Your task to perform on an android device: change keyboard looks Image 0: 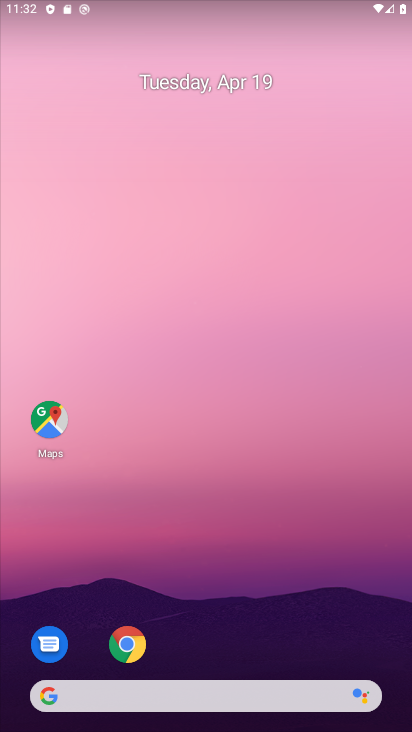
Step 0: drag from (209, 728) to (208, 106)
Your task to perform on an android device: change keyboard looks Image 1: 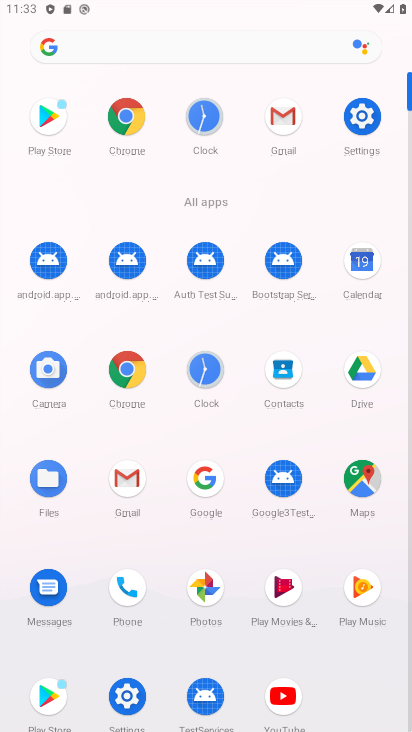
Step 1: click (129, 693)
Your task to perform on an android device: change keyboard looks Image 2: 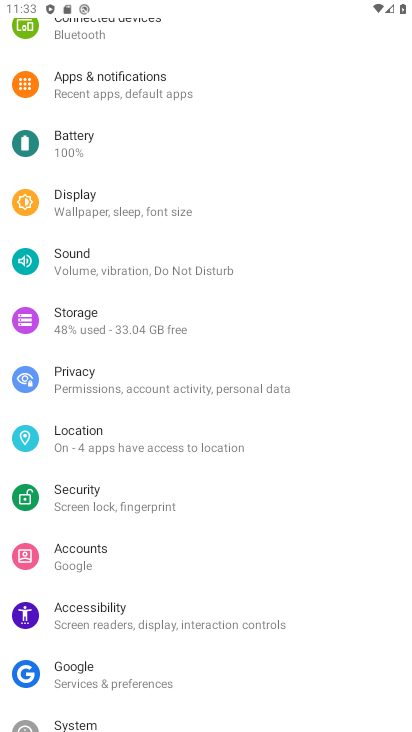
Step 2: drag from (141, 660) to (157, 222)
Your task to perform on an android device: change keyboard looks Image 3: 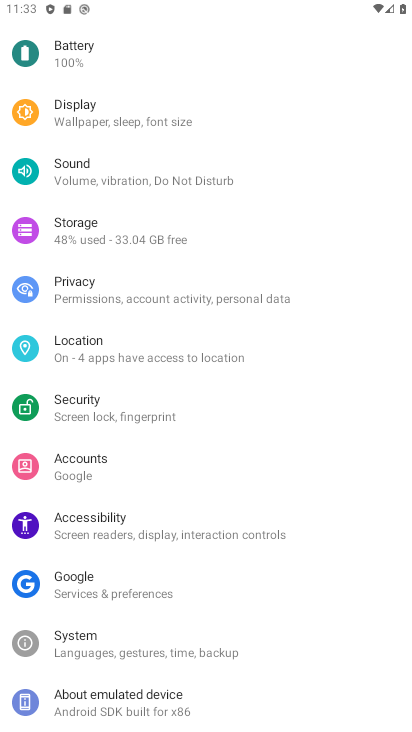
Step 3: click (99, 642)
Your task to perform on an android device: change keyboard looks Image 4: 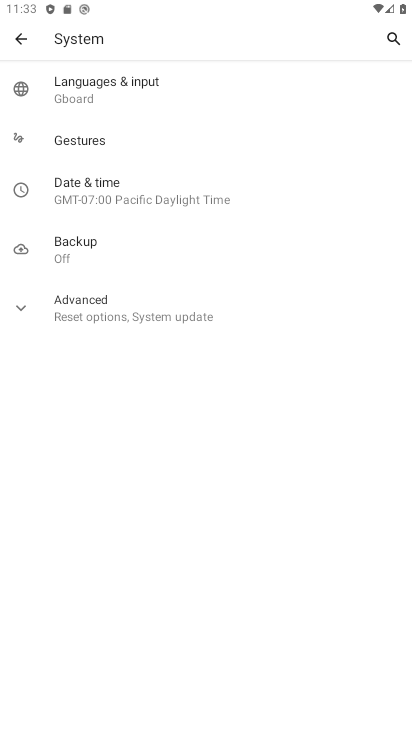
Step 4: click (86, 87)
Your task to perform on an android device: change keyboard looks Image 5: 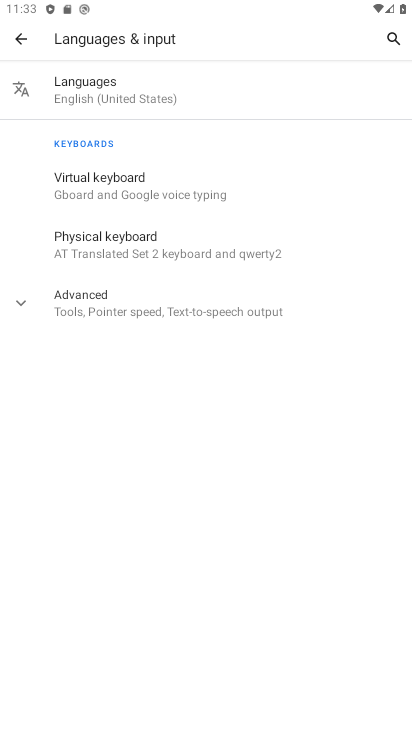
Step 5: click (117, 187)
Your task to perform on an android device: change keyboard looks Image 6: 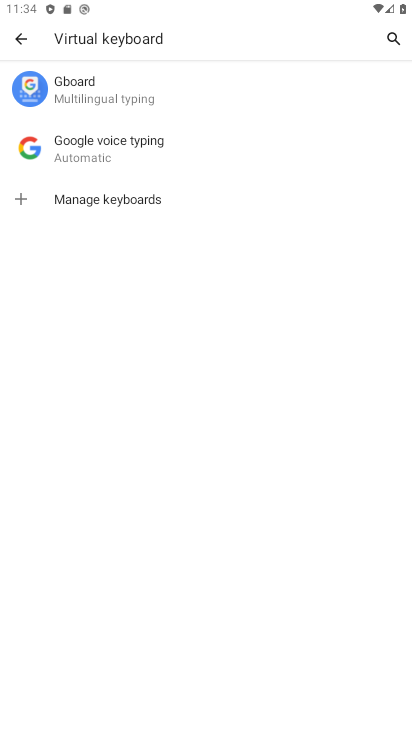
Step 6: click (86, 91)
Your task to perform on an android device: change keyboard looks Image 7: 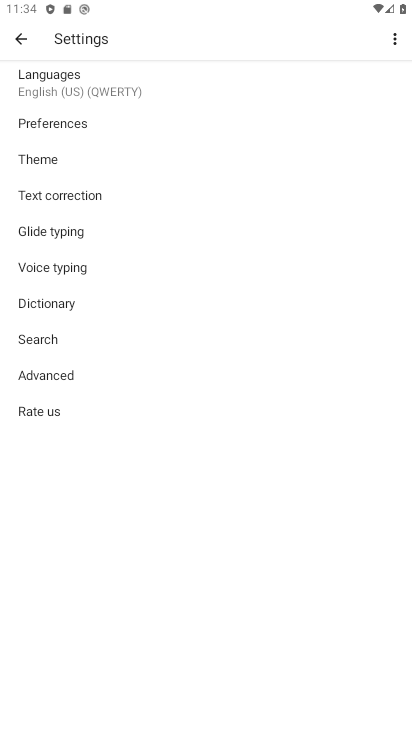
Step 7: click (36, 159)
Your task to perform on an android device: change keyboard looks Image 8: 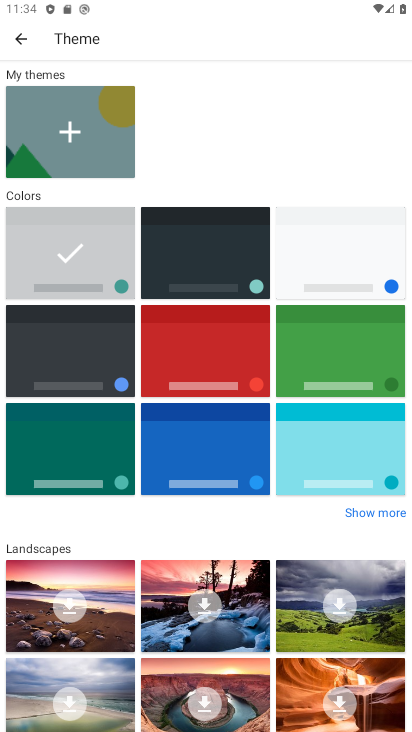
Step 8: click (185, 268)
Your task to perform on an android device: change keyboard looks Image 9: 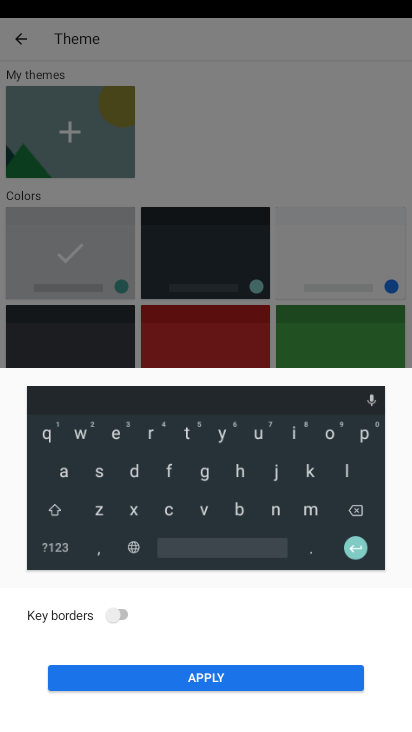
Step 9: click (122, 614)
Your task to perform on an android device: change keyboard looks Image 10: 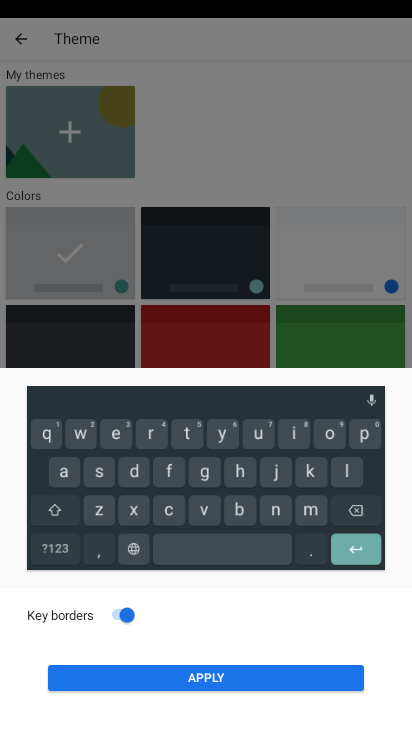
Step 10: click (198, 677)
Your task to perform on an android device: change keyboard looks Image 11: 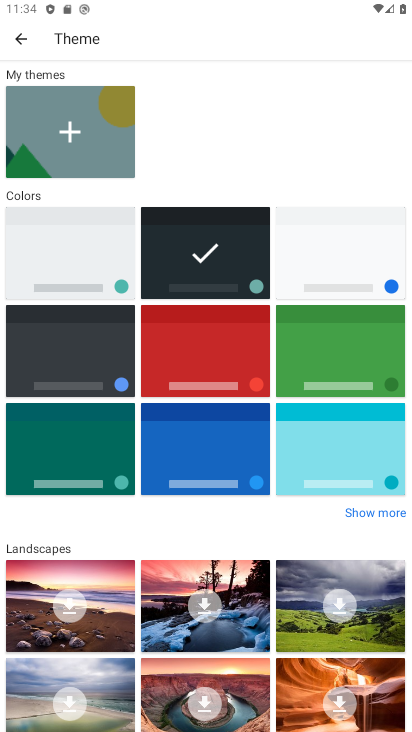
Step 11: task complete